Your task to perform on an android device: Show the shopping cart on newegg.com. Search for "macbook air" on newegg.com, select the first entry, and add it to the cart. Image 0: 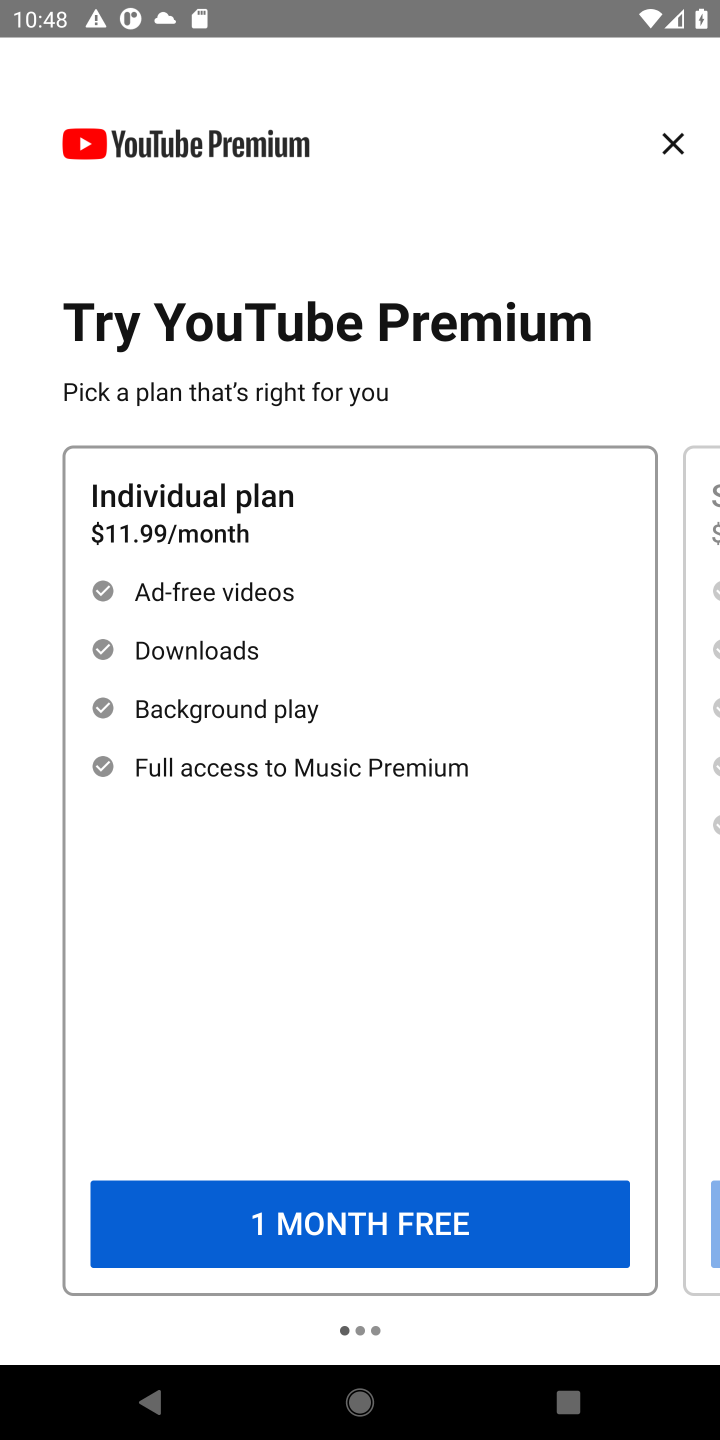
Step 0: press home button
Your task to perform on an android device: Show the shopping cart on newegg.com. Search for "macbook air" on newegg.com, select the first entry, and add it to the cart. Image 1: 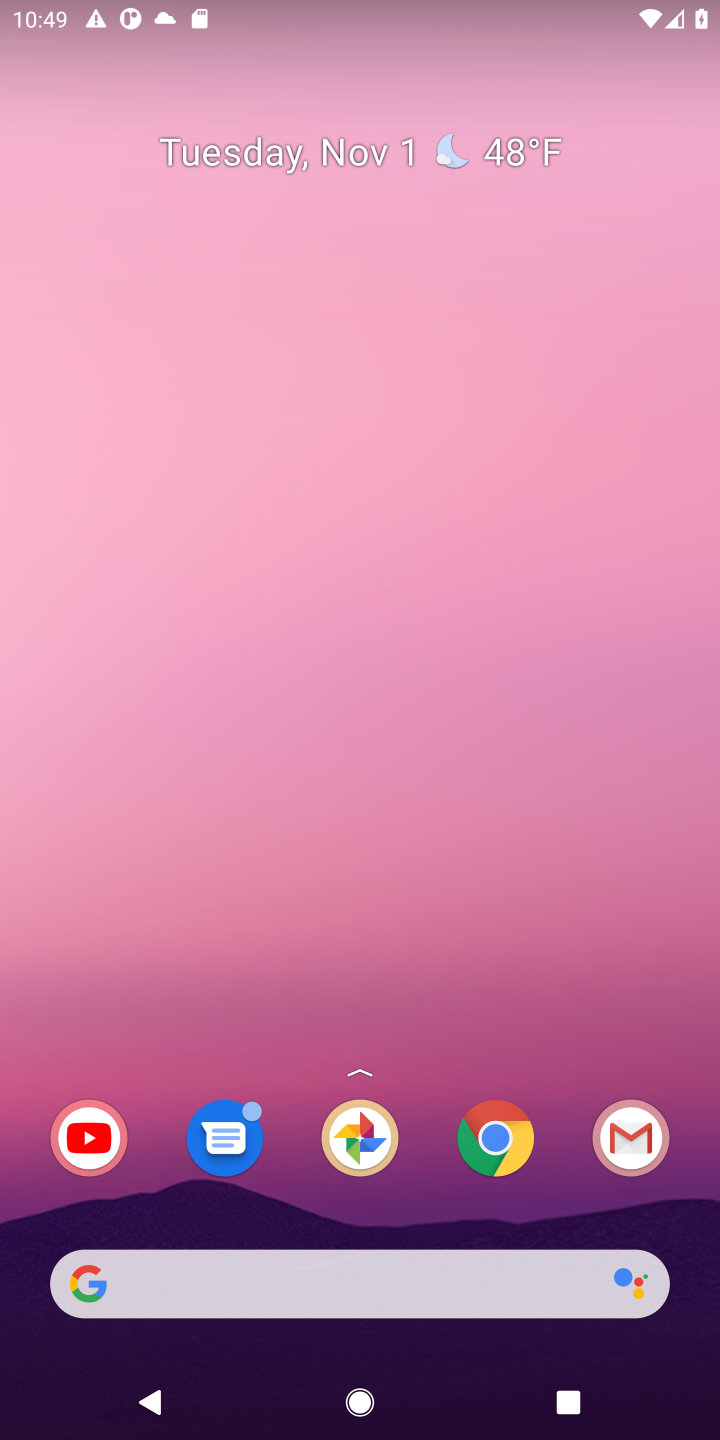
Step 1: drag from (395, 1073) to (519, 134)
Your task to perform on an android device: Show the shopping cart on newegg.com. Search for "macbook air" on newegg.com, select the first entry, and add it to the cart. Image 2: 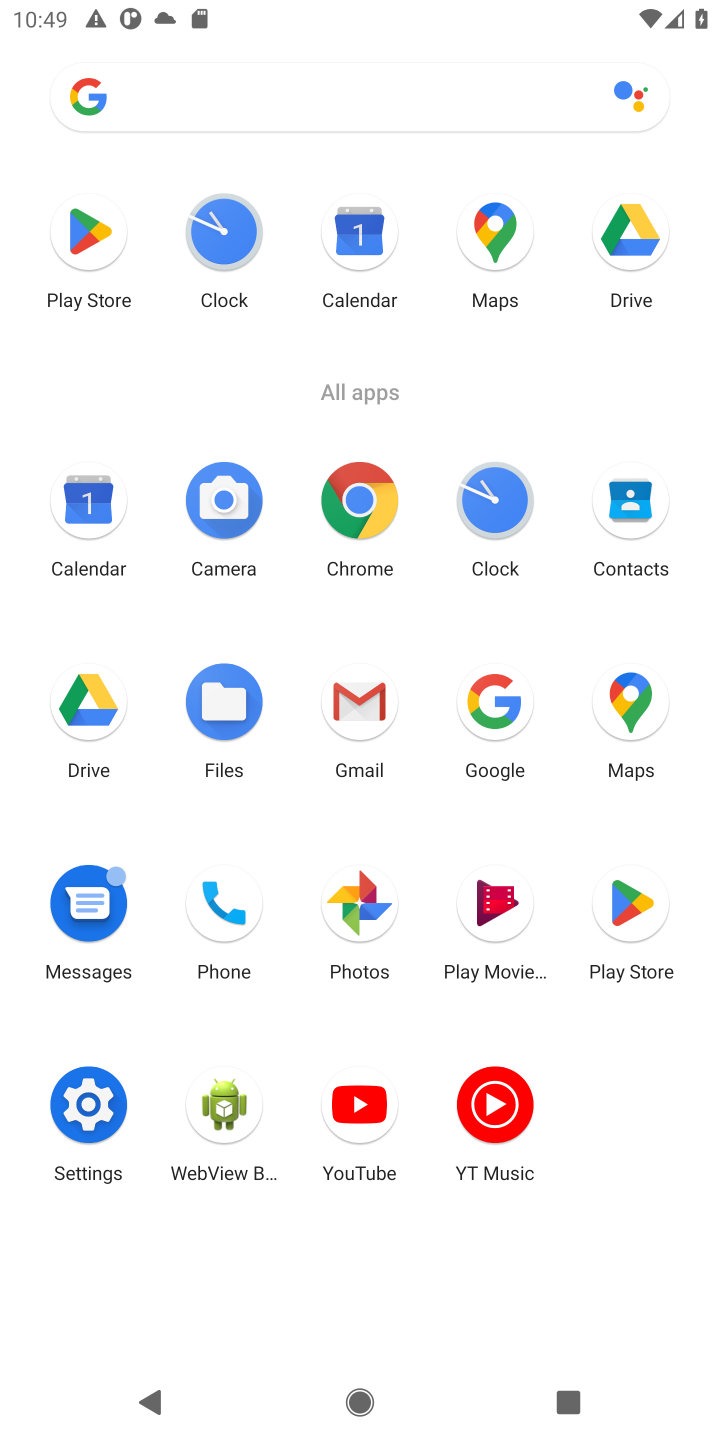
Step 2: click (359, 510)
Your task to perform on an android device: Show the shopping cart on newegg.com. Search for "macbook air" on newegg.com, select the first entry, and add it to the cart. Image 3: 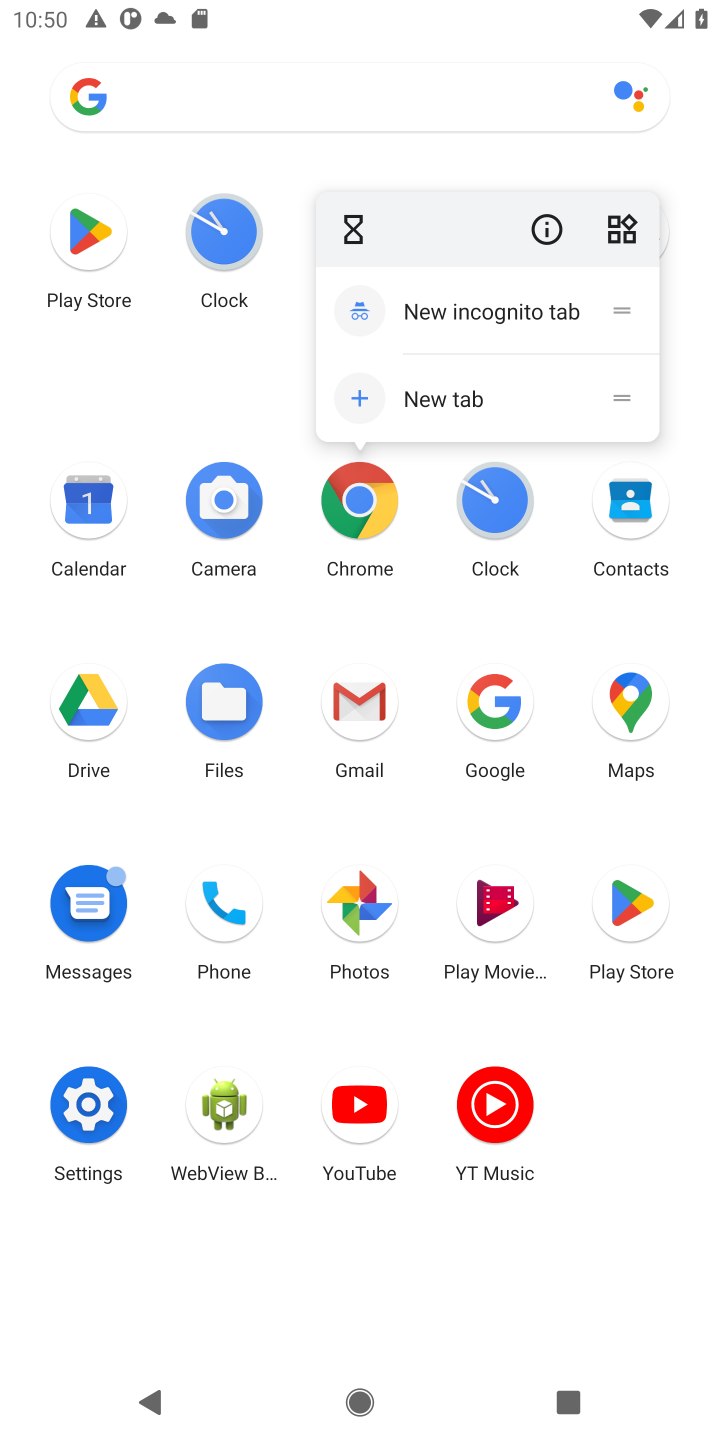
Step 3: click (358, 503)
Your task to perform on an android device: Show the shopping cart on newegg.com. Search for "macbook air" on newegg.com, select the first entry, and add it to the cart. Image 4: 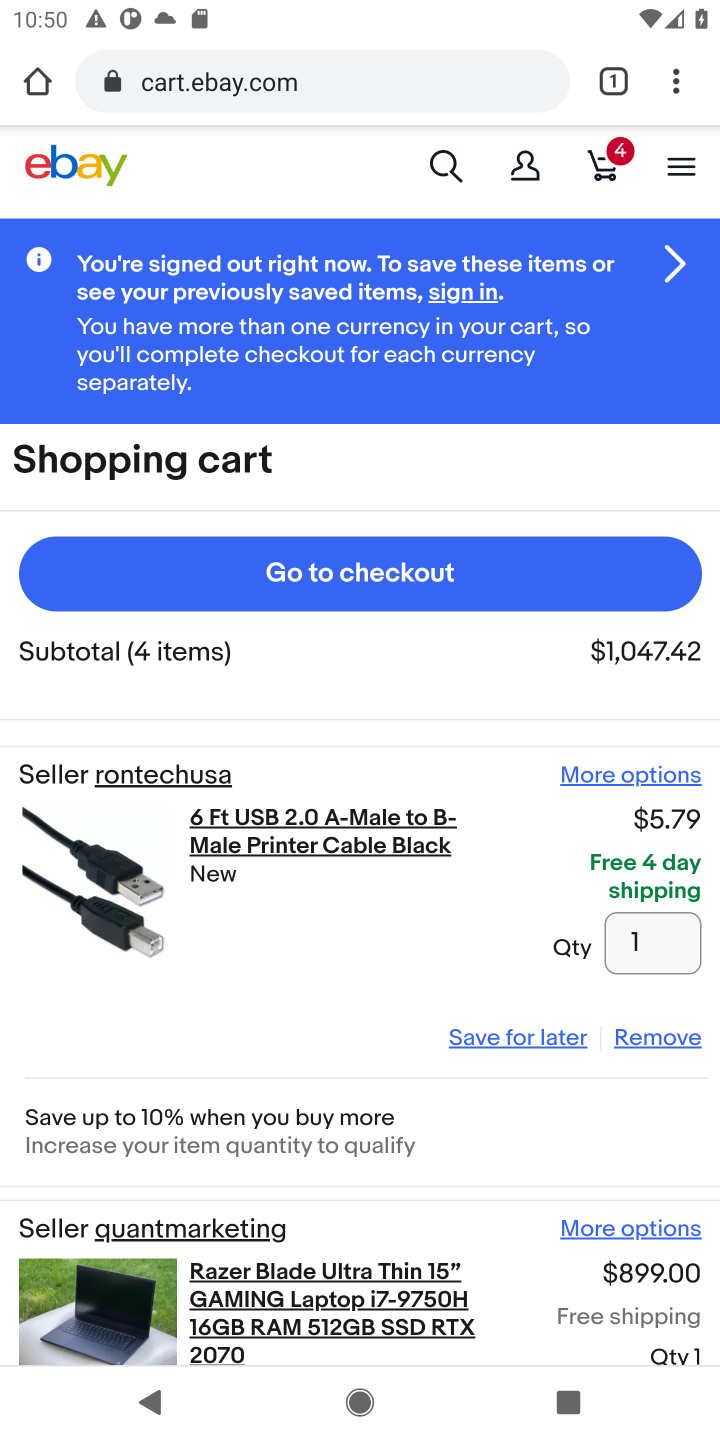
Step 4: click (214, 71)
Your task to perform on an android device: Show the shopping cart on newegg.com. Search for "macbook air" on newegg.com, select the first entry, and add it to the cart. Image 5: 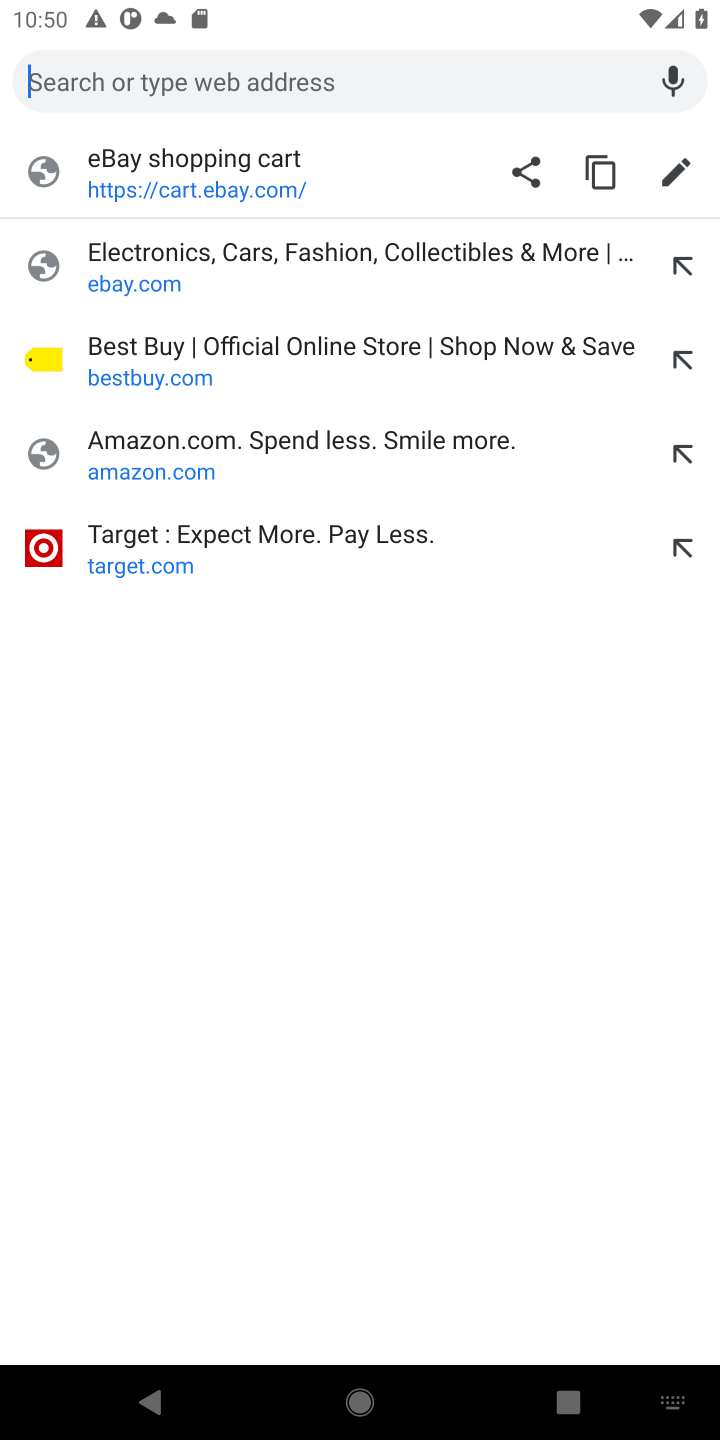
Step 5: type "newegg"
Your task to perform on an android device: Show the shopping cart on newegg.com. Search for "macbook air" on newegg.com, select the first entry, and add it to the cart. Image 6: 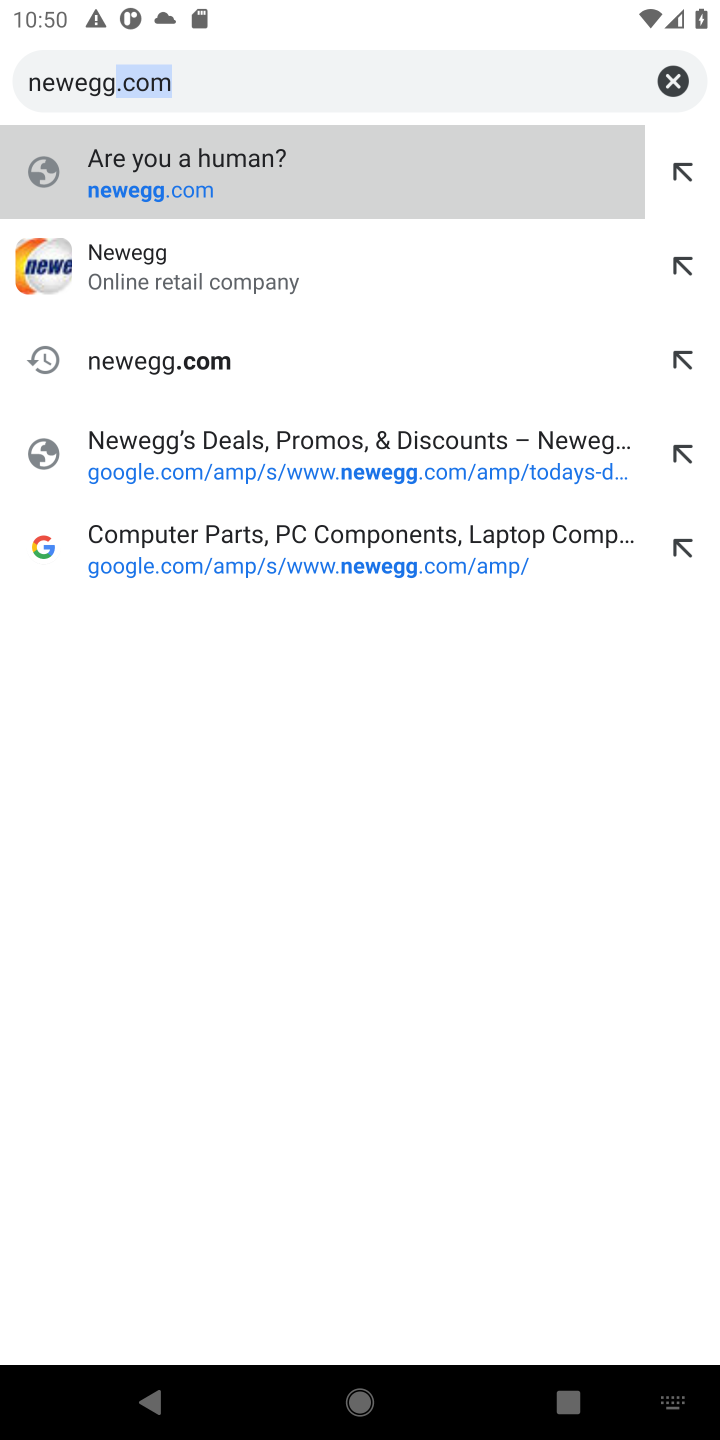
Step 6: click (165, 255)
Your task to perform on an android device: Show the shopping cart on newegg.com. Search for "macbook air" on newegg.com, select the first entry, and add it to the cart. Image 7: 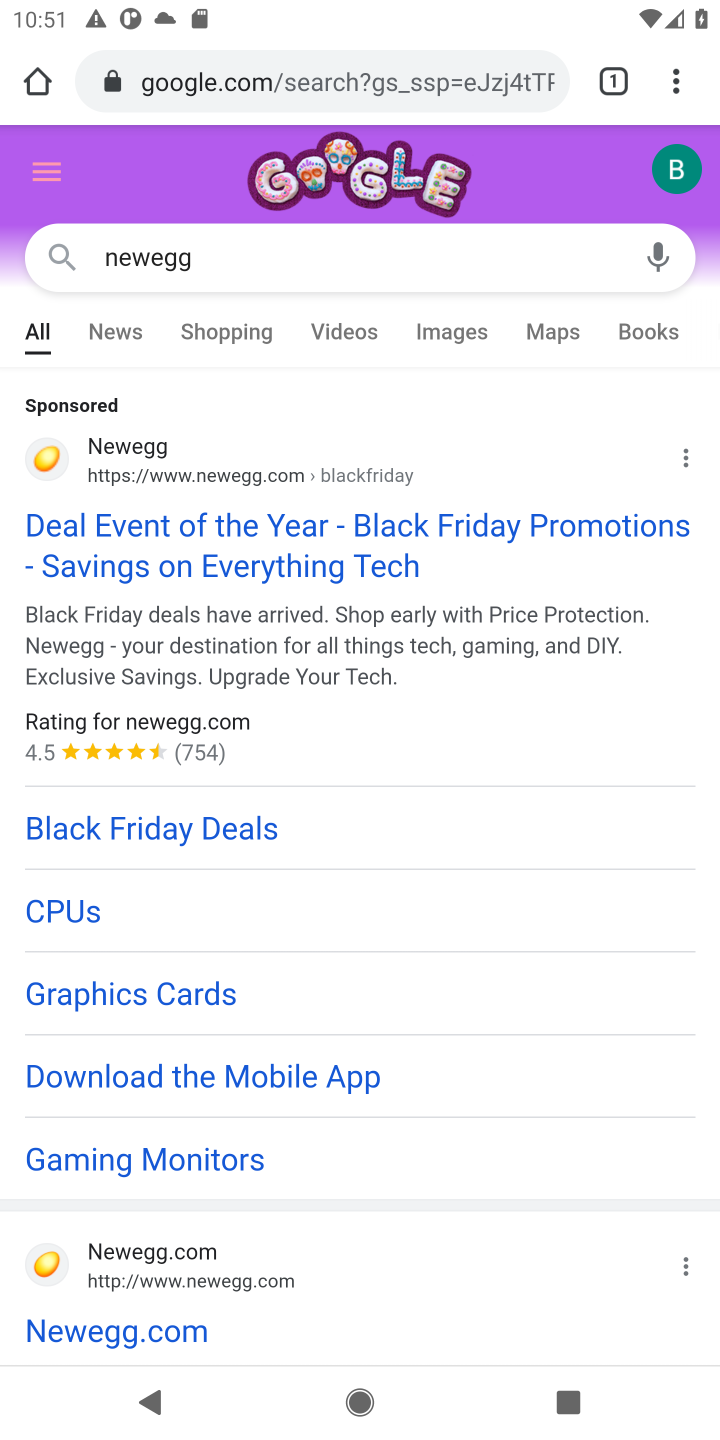
Step 7: click (171, 1330)
Your task to perform on an android device: Show the shopping cart on newegg.com. Search for "macbook air" on newegg.com, select the first entry, and add it to the cart. Image 8: 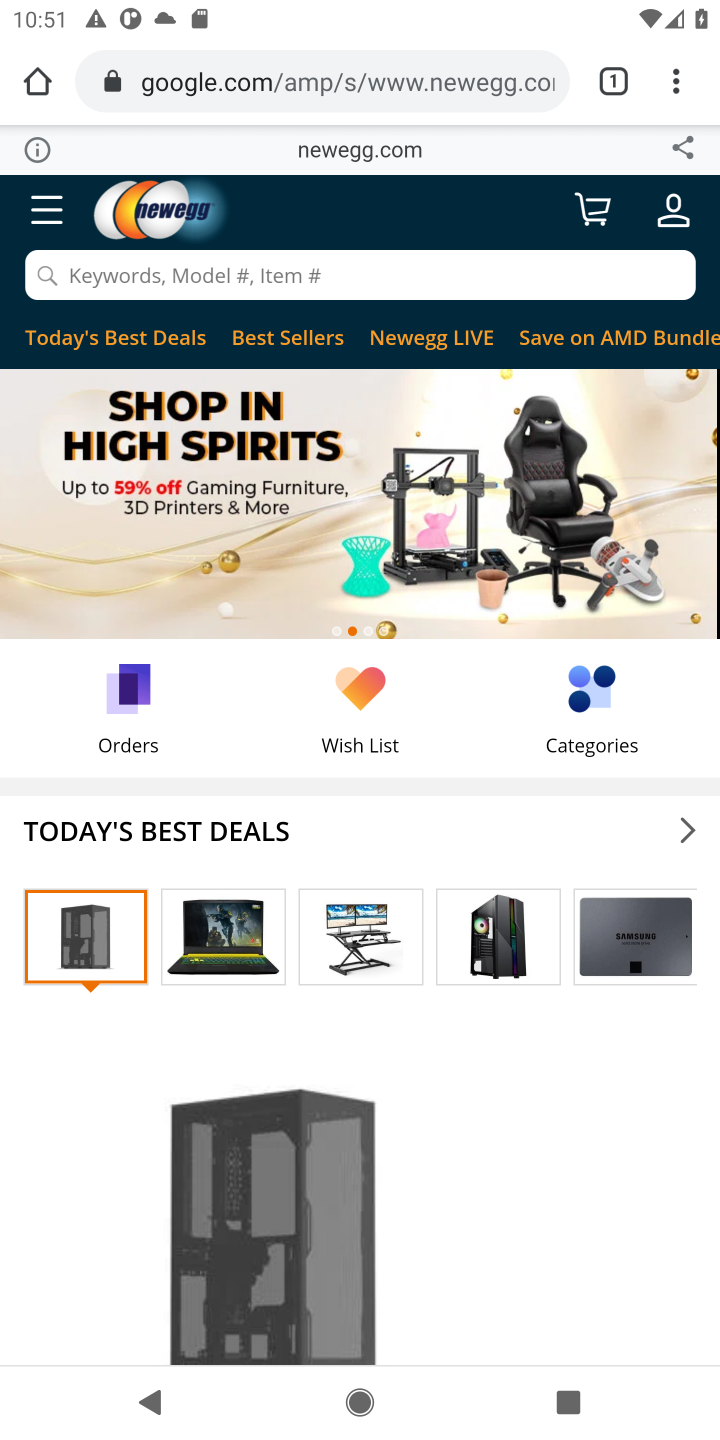
Step 8: drag from (548, 1119) to (564, 372)
Your task to perform on an android device: Show the shopping cart on newegg.com. Search for "macbook air" on newegg.com, select the first entry, and add it to the cart. Image 9: 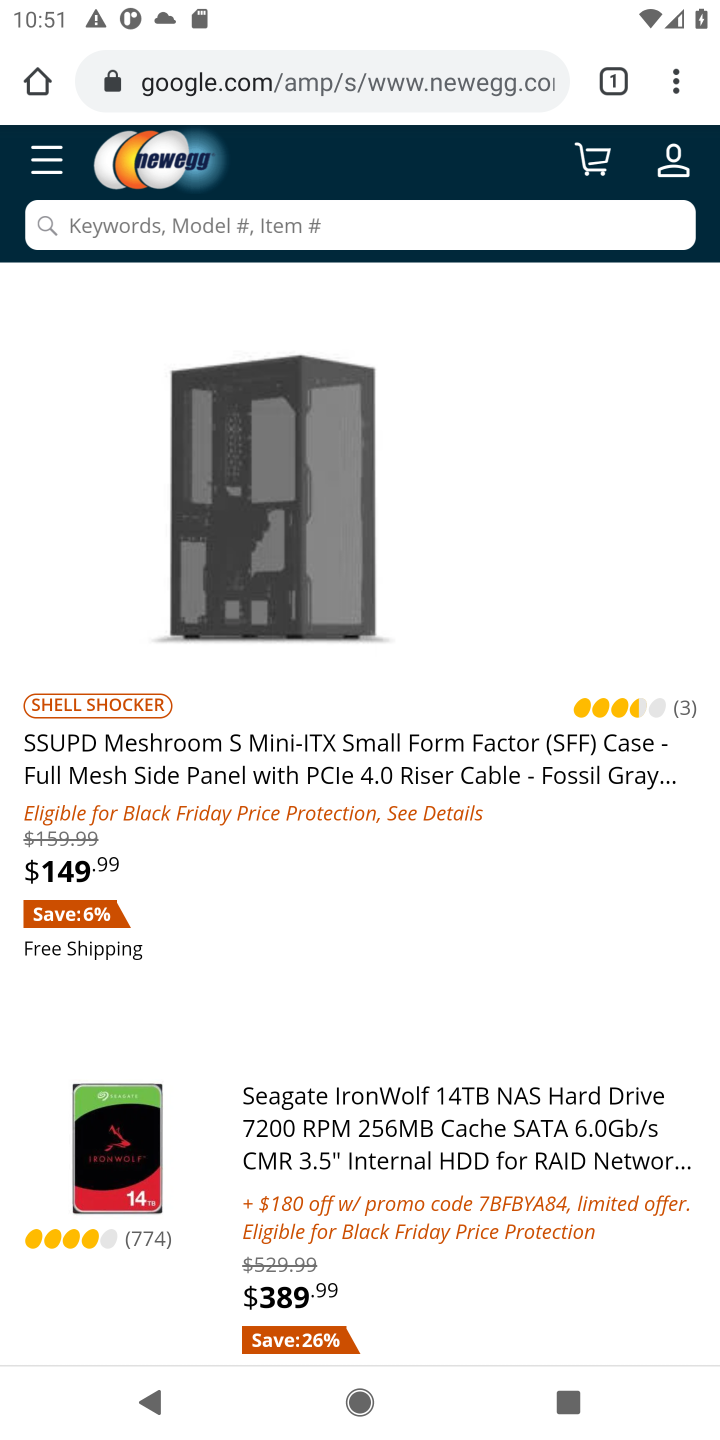
Step 9: drag from (358, 1165) to (516, 360)
Your task to perform on an android device: Show the shopping cart on newegg.com. Search for "macbook air" on newegg.com, select the first entry, and add it to the cart. Image 10: 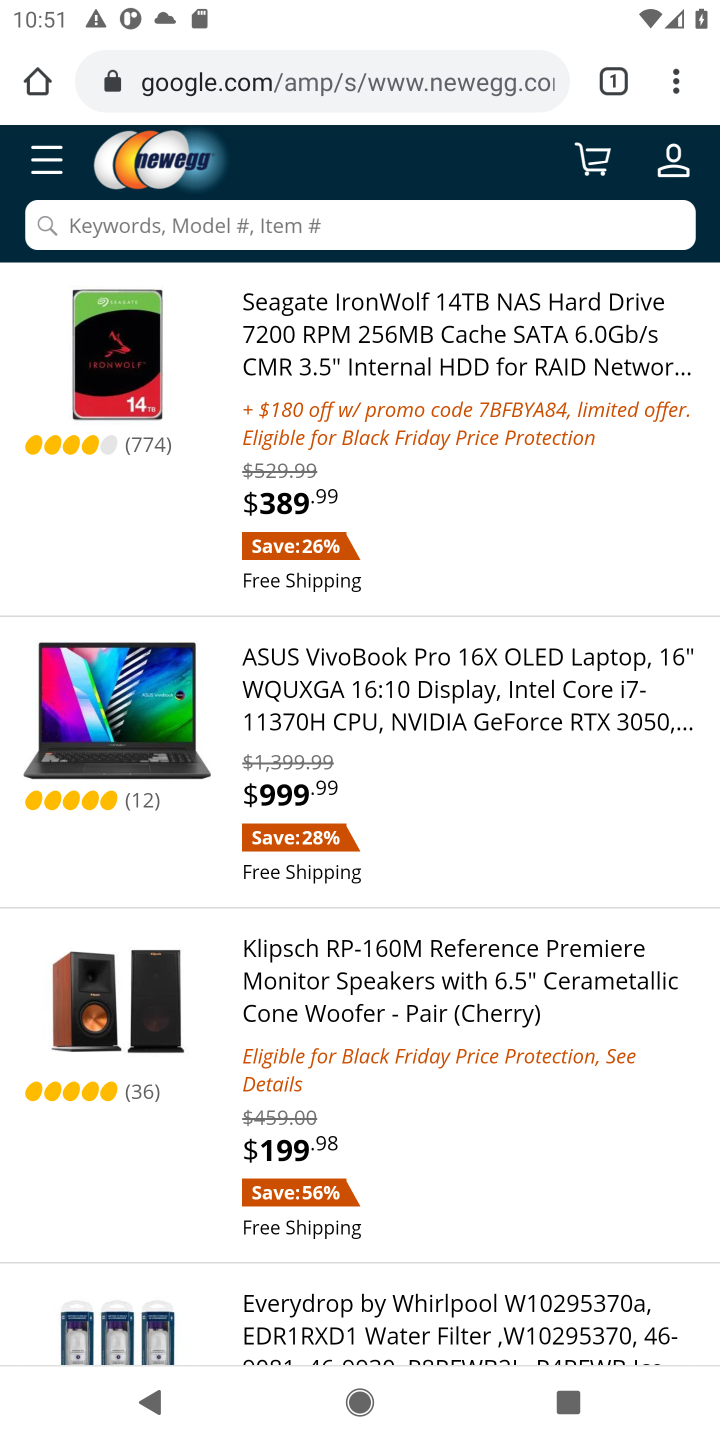
Step 10: click (218, 218)
Your task to perform on an android device: Show the shopping cart on newegg.com. Search for "macbook air" on newegg.com, select the first entry, and add it to the cart. Image 11: 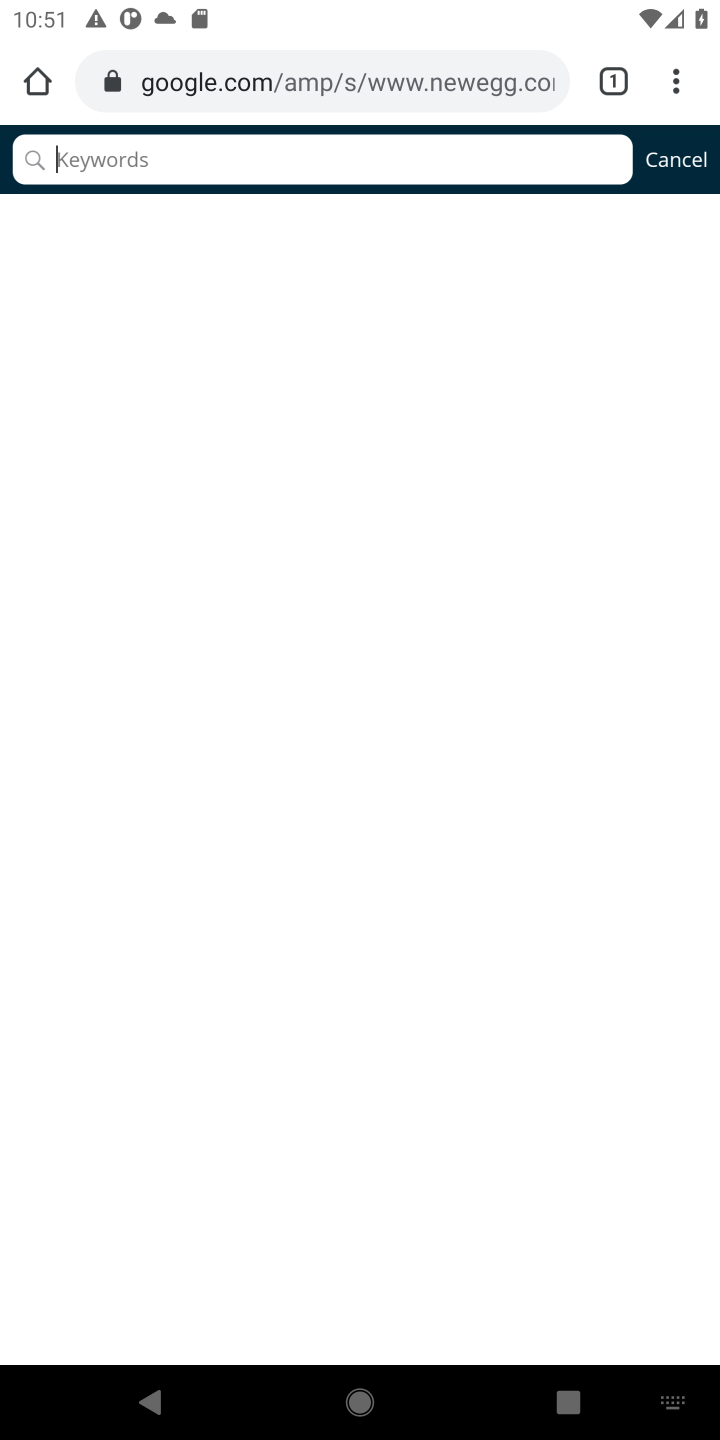
Step 11: type "macbook air"
Your task to perform on an android device: Show the shopping cart on newegg.com. Search for "macbook air" on newegg.com, select the first entry, and add it to the cart. Image 12: 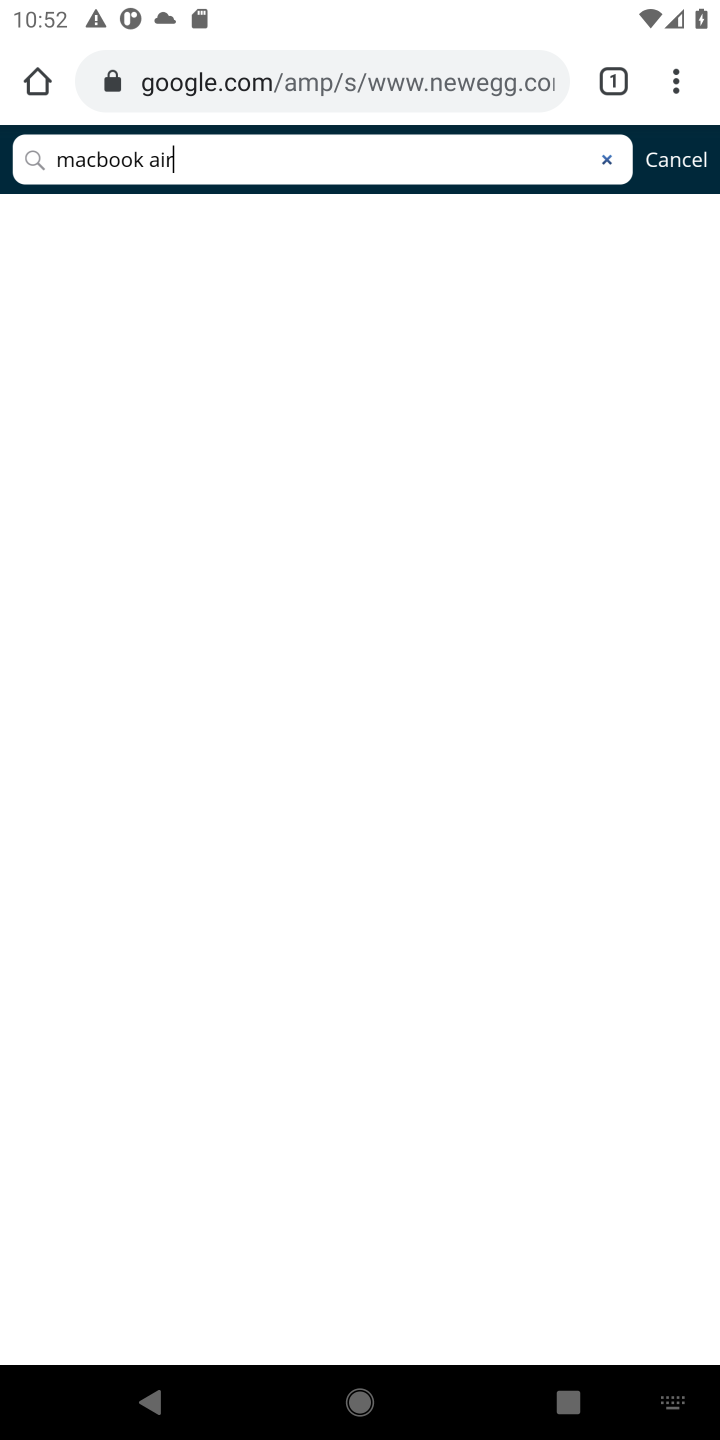
Step 12: task complete